Your task to perform on an android device: open device folders in google photos Image 0: 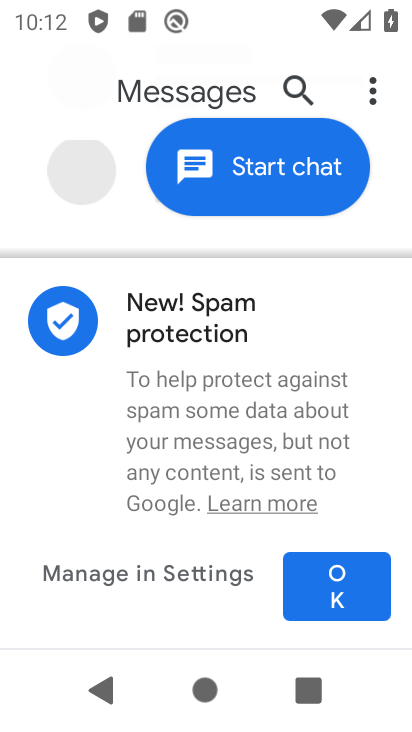
Step 0: press home button
Your task to perform on an android device: open device folders in google photos Image 1: 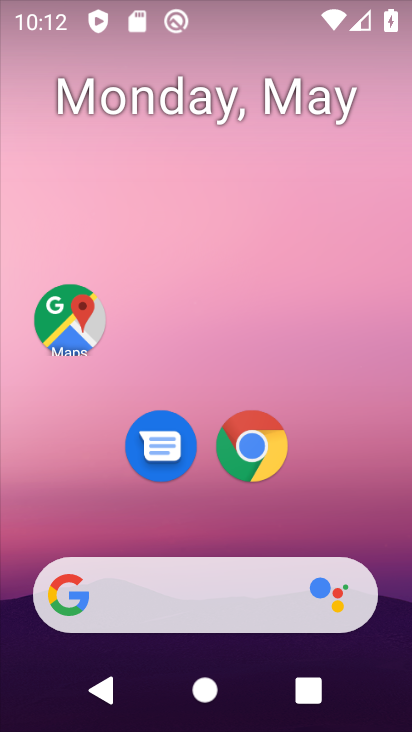
Step 1: drag from (328, 512) to (361, 68)
Your task to perform on an android device: open device folders in google photos Image 2: 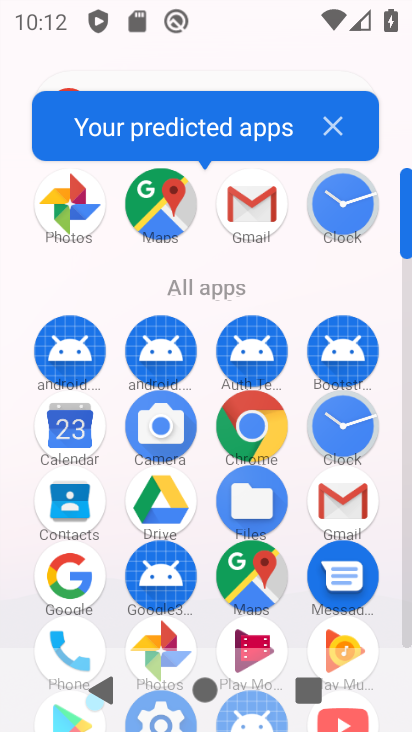
Step 2: click (63, 222)
Your task to perform on an android device: open device folders in google photos Image 3: 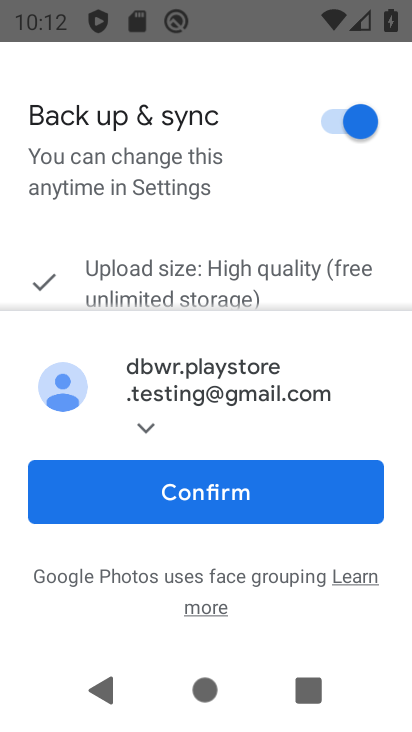
Step 3: click (225, 481)
Your task to perform on an android device: open device folders in google photos Image 4: 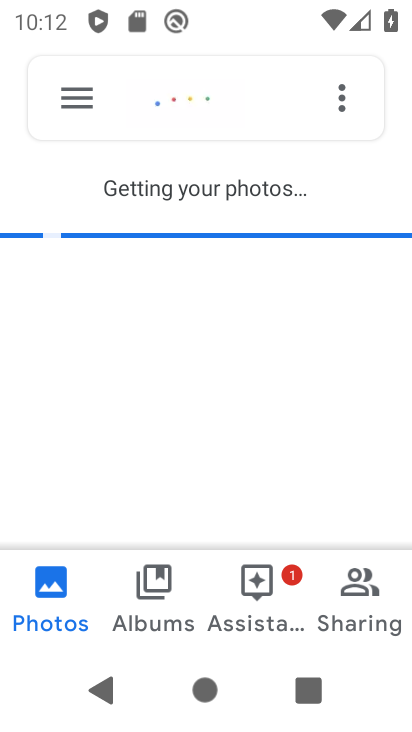
Step 4: click (75, 77)
Your task to perform on an android device: open device folders in google photos Image 5: 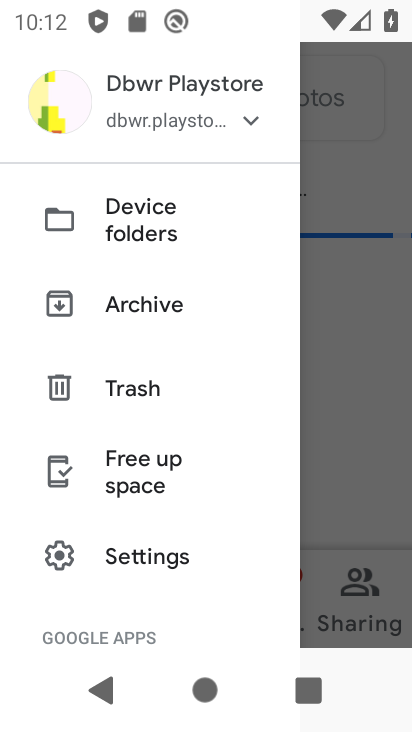
Step 5: click (140, 210)
Your task to perform on an android device: open device folders in google photos Image 6: 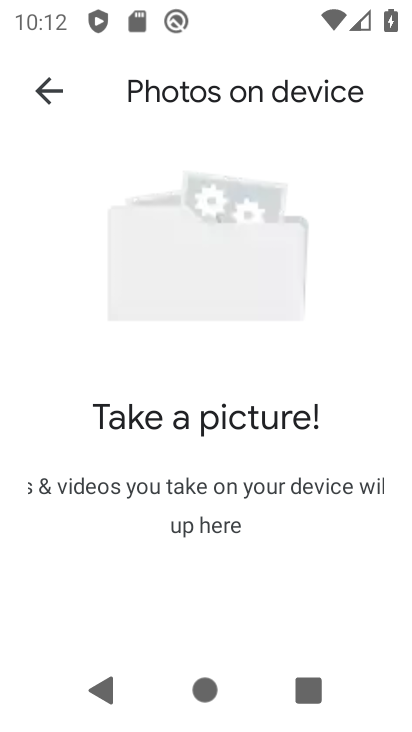
Step 6: task complete